Your task to perform on an android device: Searchfor good French restaurants Image 0: 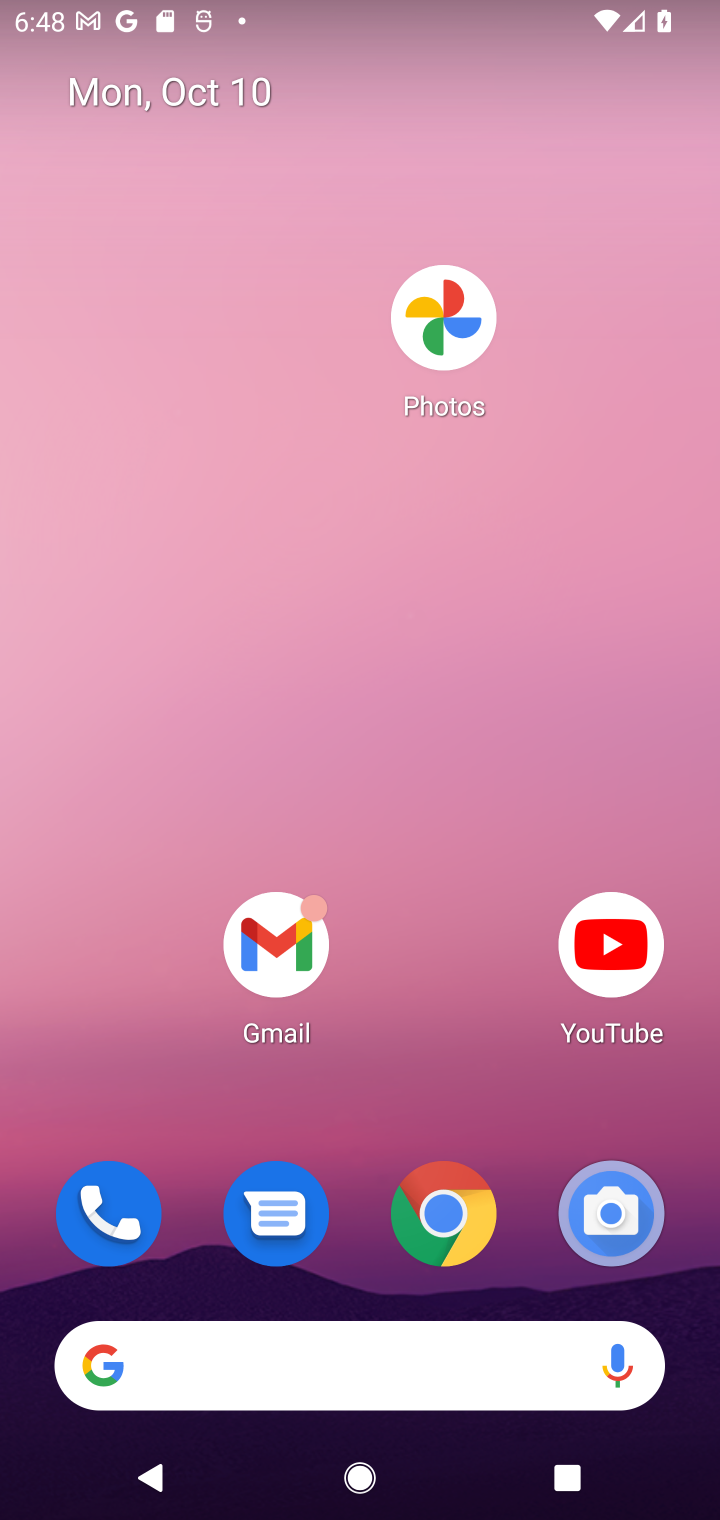
Step 0: click (344, 1332)
Your task to perform on an android device: Searchfor good French restaurants Image 1: 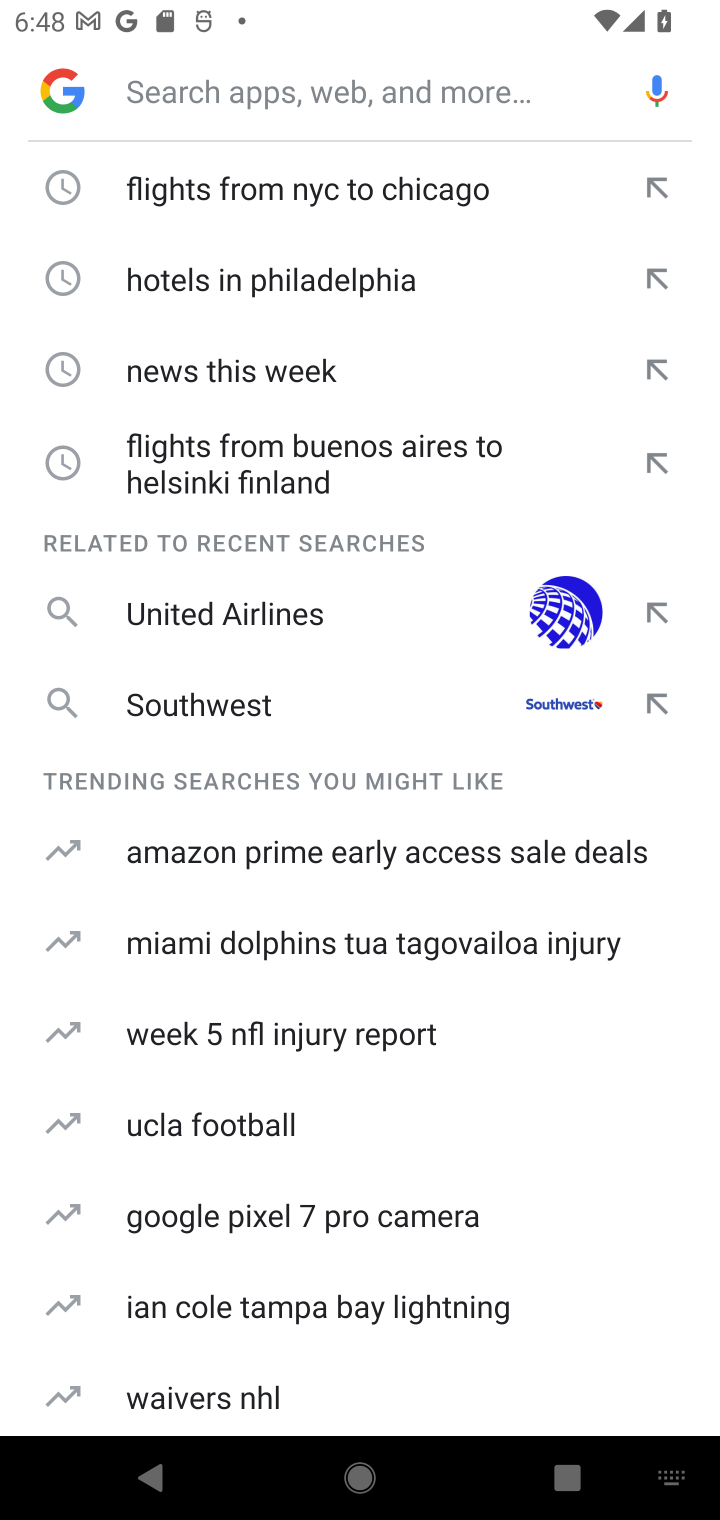
Step 1: type "good French restaurants"
Your task to perform on an android device: Searchfor good French restaurants Image 2: 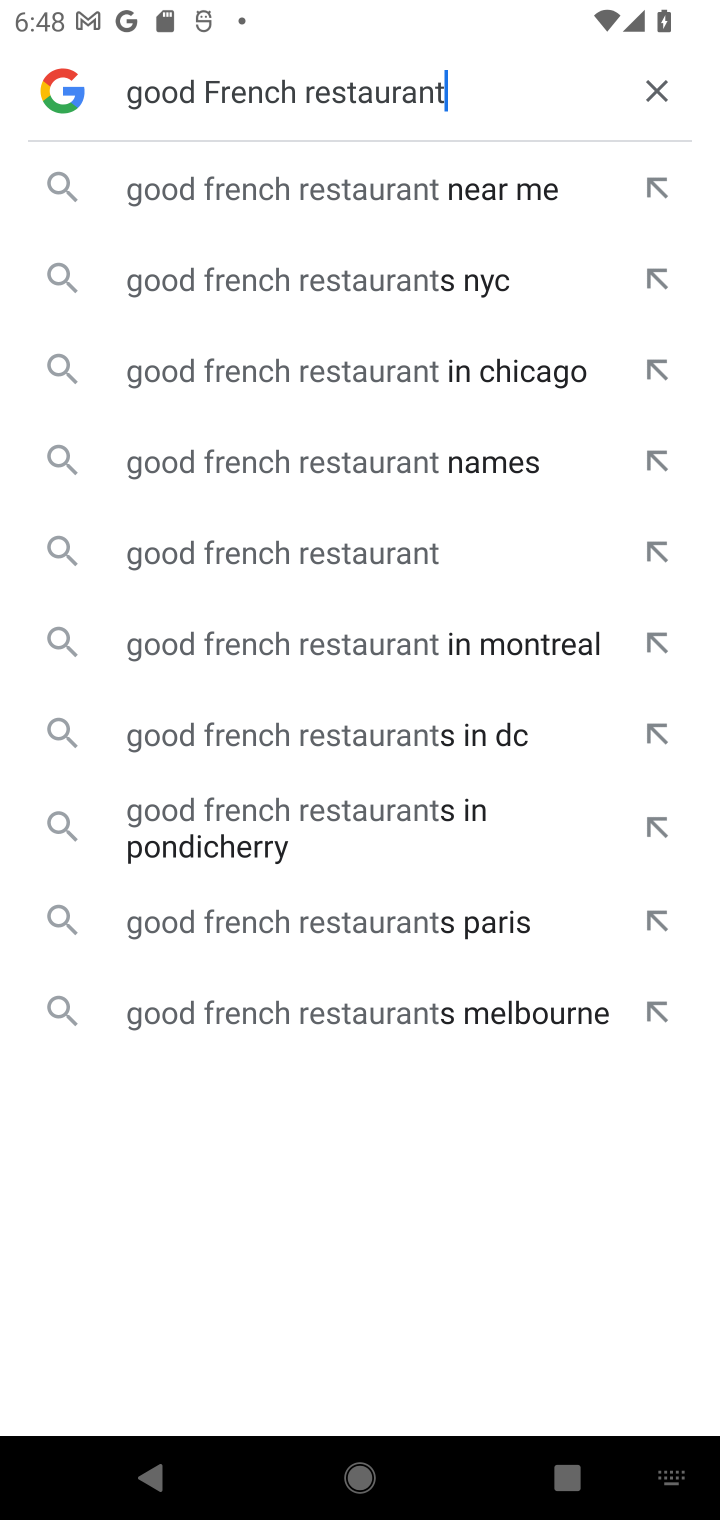
Step 2: type ""
Your task to perform on an android device: Searchfor good French restaurants Image 3: 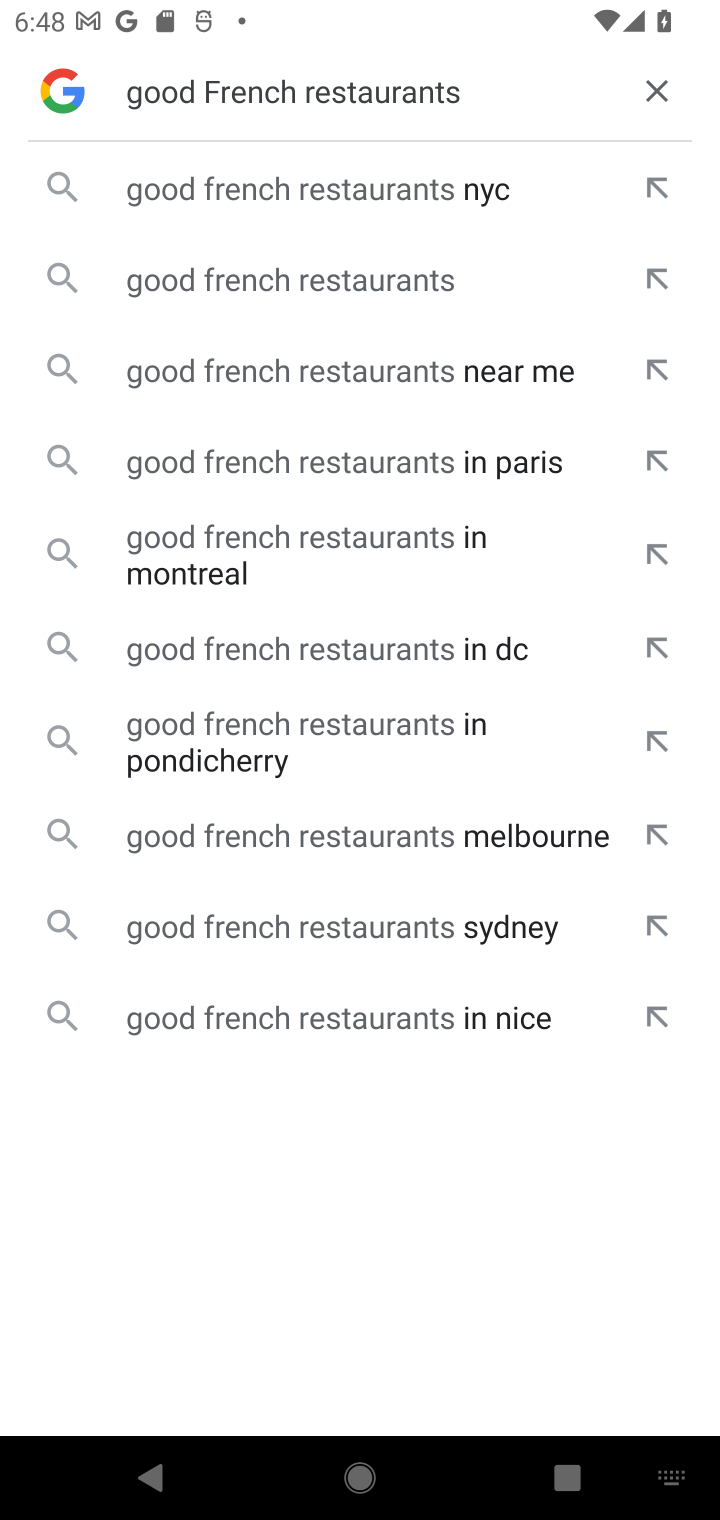
Step 3: click (431, 294)
Your task to perform on an android device: Searchfor good French restaurants Image 4: 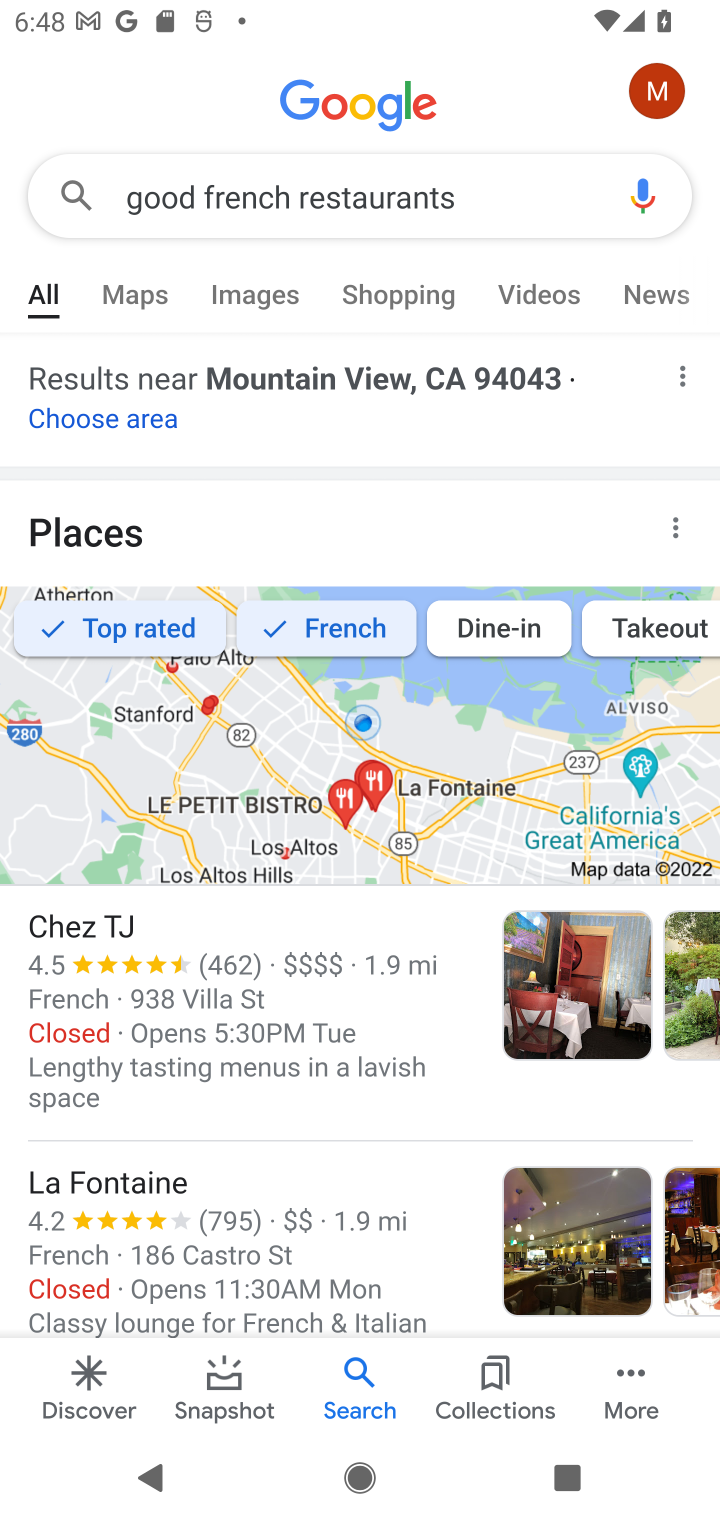
Step 4: task complete